Your task to perform on an android device: Open Google Chrome and click the shortcut for Amazon.com Image 0: 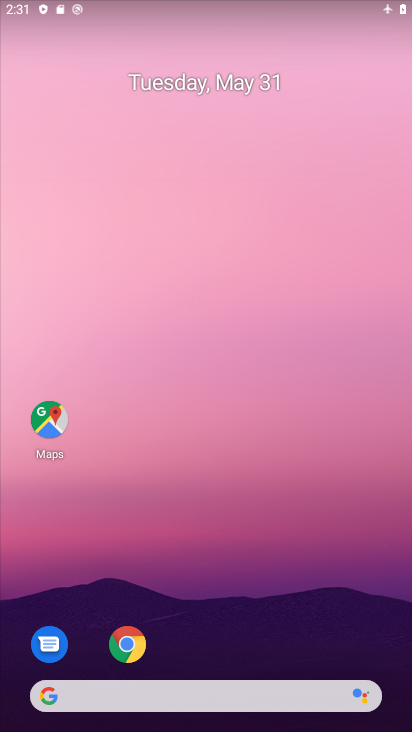
Step 0: click (138, 640)
Your task to perform on an android device: Open Google Chrome and click the shortcut for Amazon.com Image 1: 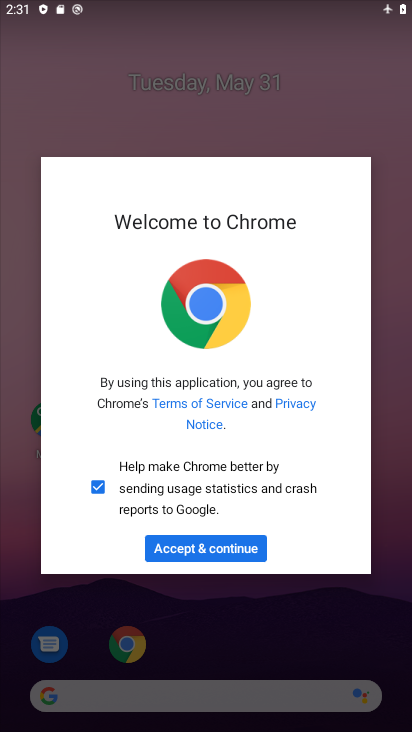
Step 1: click (223, 560)
Your task to perform on an android device: Open Google Chrome and click the shortcut for Amazon.com Image 2: 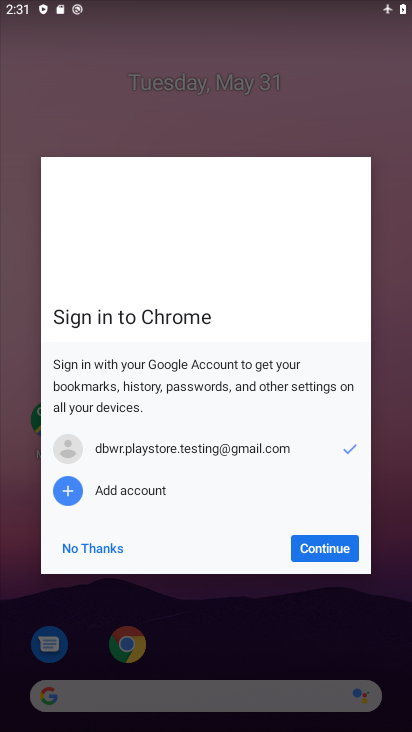
Step 2: click (322, 547)
Your task to perform on an android device: Open Google Chrome and click the shortcut for Amazon.com Image 3: 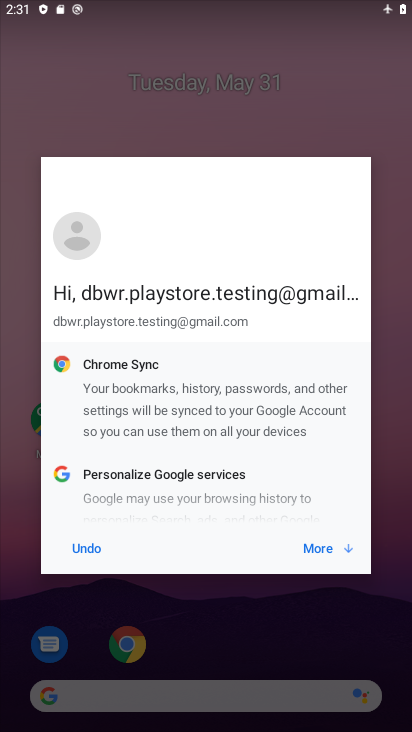
Step 3: click (322, 547)
Your task to perform on an android device: Open Google Chrome and click the shortcut for Amazon.com Image 4: 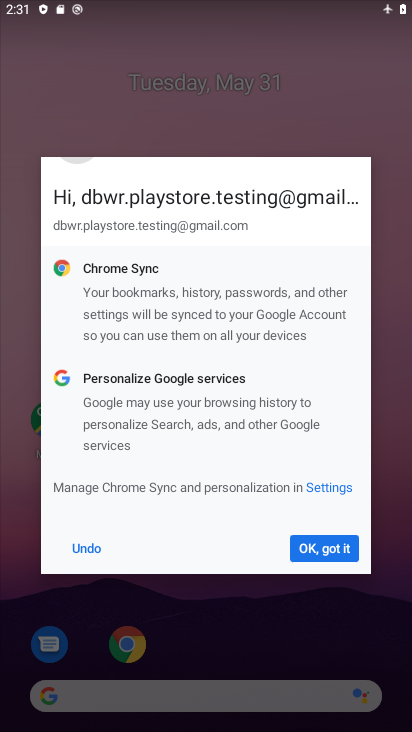
Step 4: click (322, 547)
Your task to perform on an android device: Open Google Chrome and click the shortcut for Amazon.com Image 5: 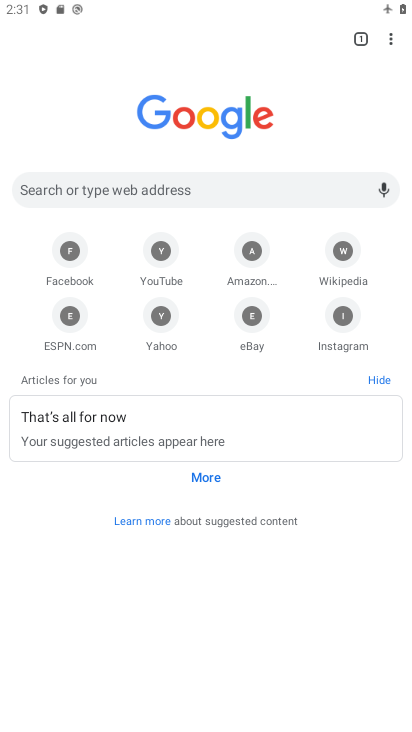
Step 5: click (255, 252)
Your task to perform on an android device: Open Google Chrome and click the shortcut for Amazon.com Image 6: 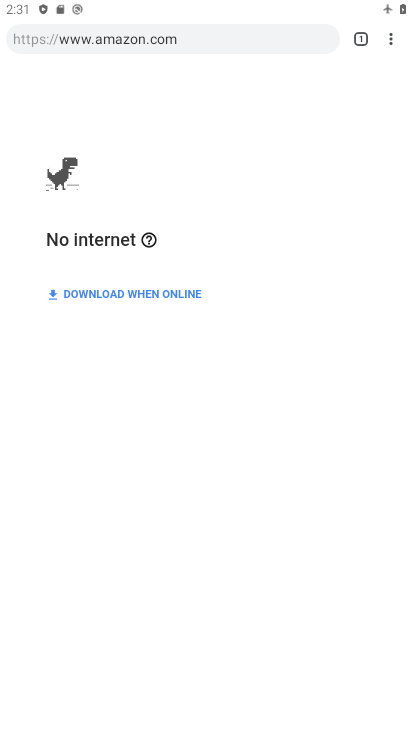
Step 6: task complete